Your task to perform on an android device: When is my next appointment? Image 0: 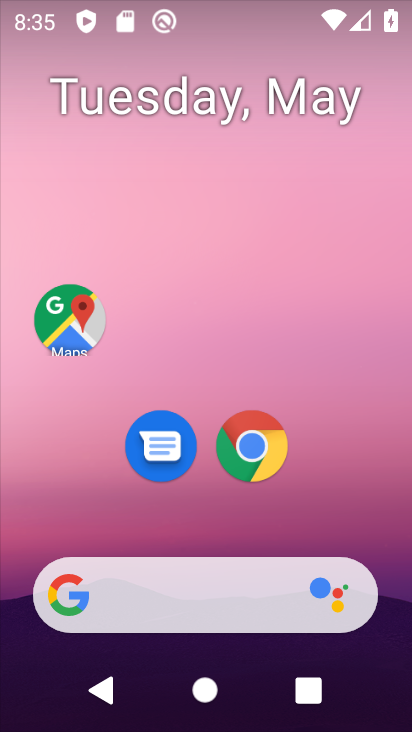
Step 0: drag from (387, 542) to (402, 303)
Your task to perform on an android device: When is my next appointment? Image 1: 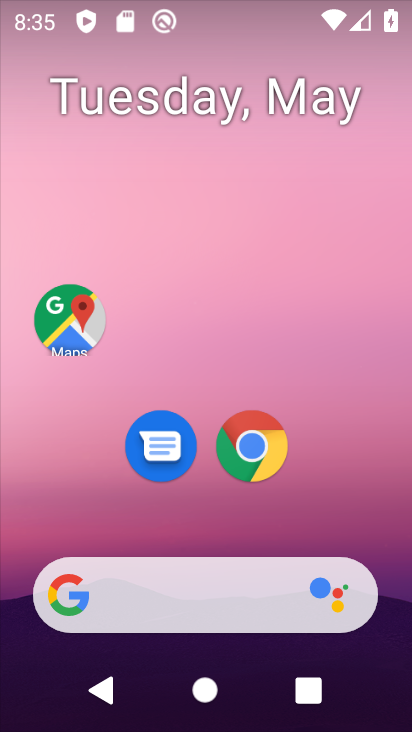
Step 1: drag from (376, 540) to (368, 191)
Your task to perform on an android device: When is my next appointment? Image 2: 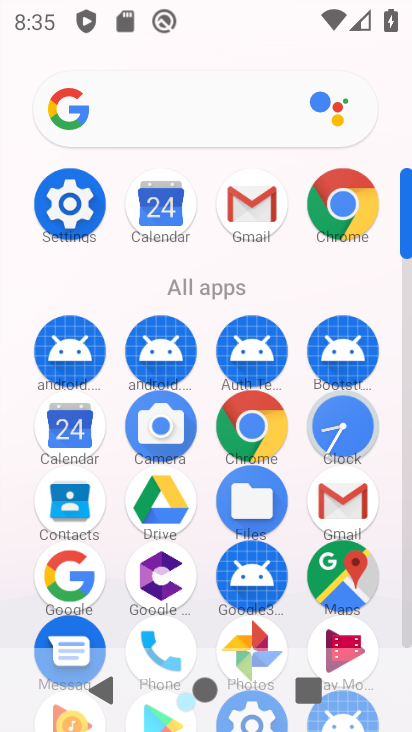
Step 2: click (68, 430)
Your task to perform on an android device: When is my next appointment? Image 3: 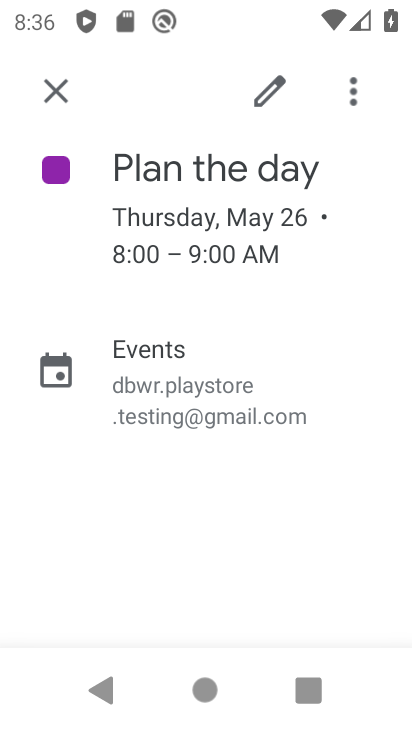
Step 3: task complete